Your task to perform on an android device: change notification settings in the gmail app Image 0: 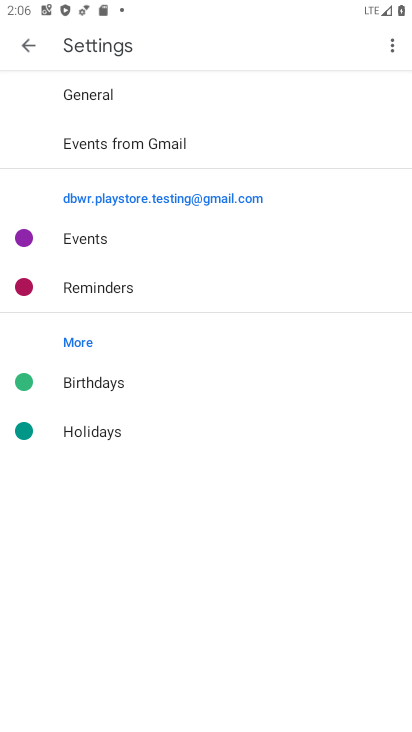
Step 0: press back button
Your task to perform on an android device: change notification settings in the gmail app Image 1: 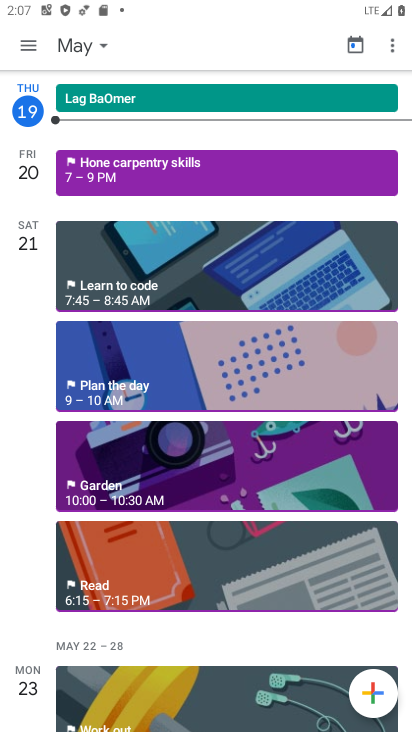
Step 1: press back button
Your task to perform on an android device: change notification settings in the gmail app Image 2: 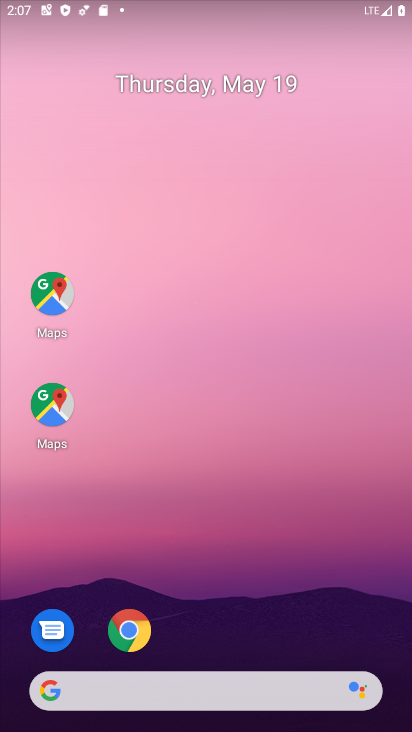
Step 2: drag from (225, 504) to (220, 67)
Your task to perform on an android device: change notification settings in the gmail app Image 3: 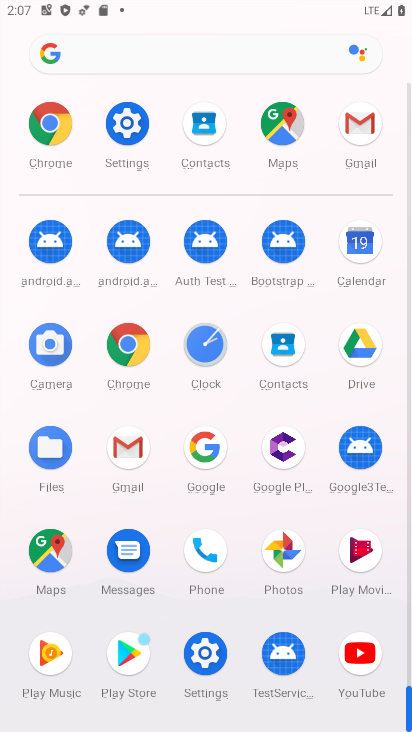
Step 3: drag from (7, 561) to (15, 311)
Your task to perform on an android device: change notification settings in the gmail app Image 4: 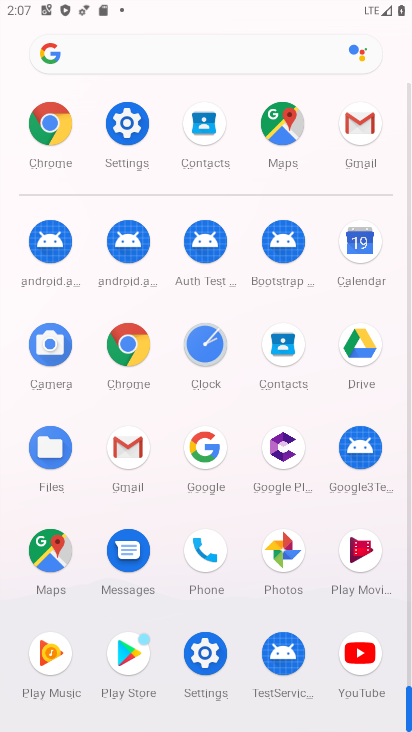
Step 4: click (129, 438)
Your task to perform on an android device: change notification settings in the gmail app Image 5: 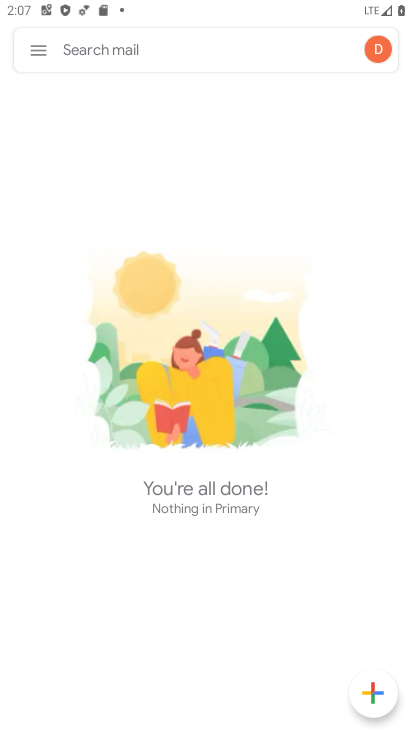
Step 5: click (33, 56)
Your task to perform on an android device: change notification settings in the gmail app Image 6: 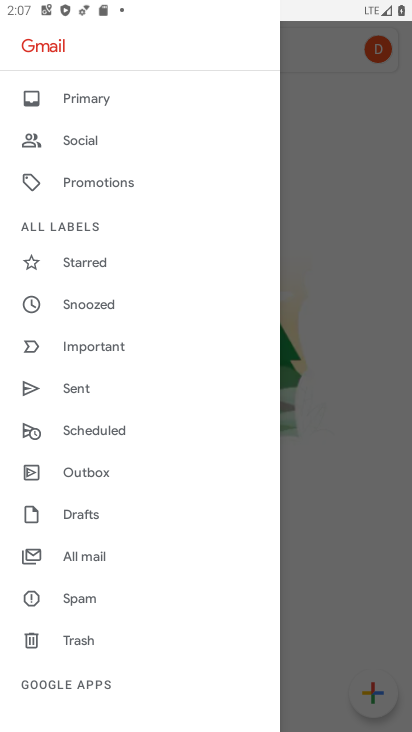
Step 6: drag from (117, 607) to (131, 106)
Your task to perform on an android device: change notification settings in the gmail app Image 7: 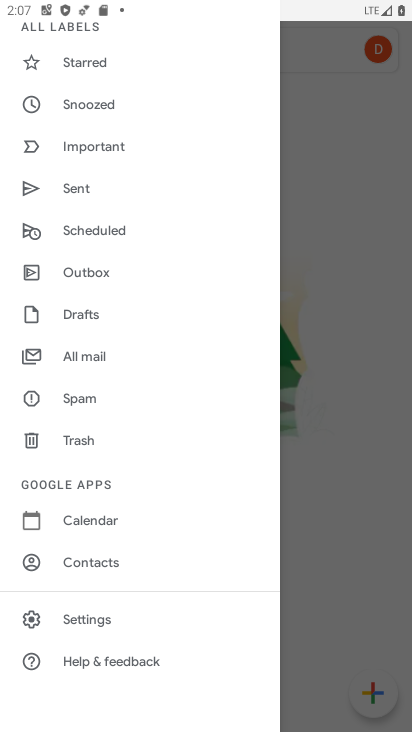
Step 7: click (71, 609)
Your task to perform on an android device: change notification settings in the gmail app Image 8: 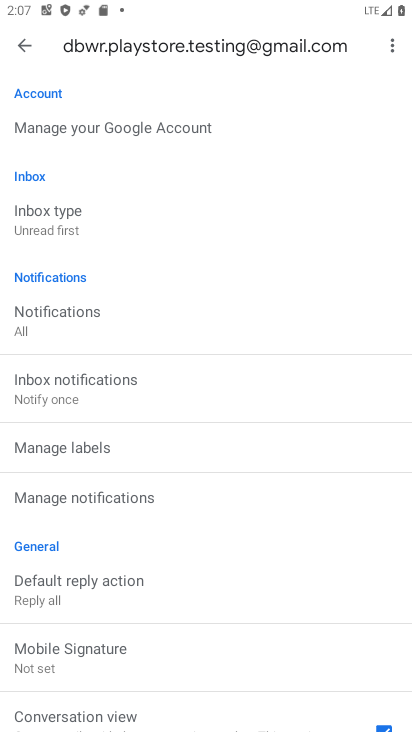
Step 8: drag from (250, 647) to (248, 263)
Your task to perform on an android device: change notification settings in the gmail app Image 9: 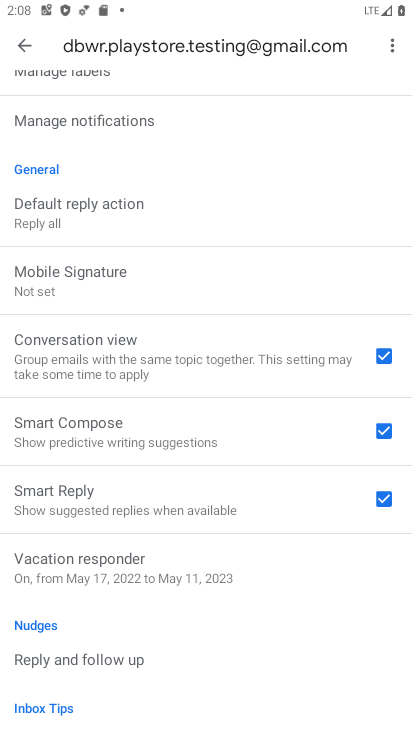
Step 9: click (91, 121)
Your task to perform on an android device: change notification settings in the gmail app Image 10: 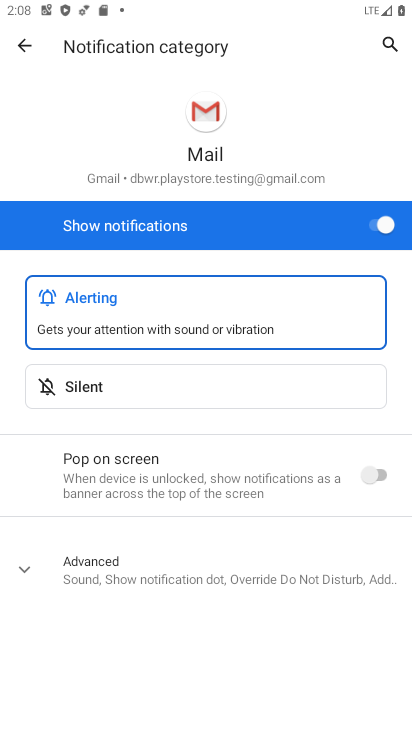
Step 10: click (379, 216)
Your task to perform on an android device: change notification settings in the gmail app Image 11: 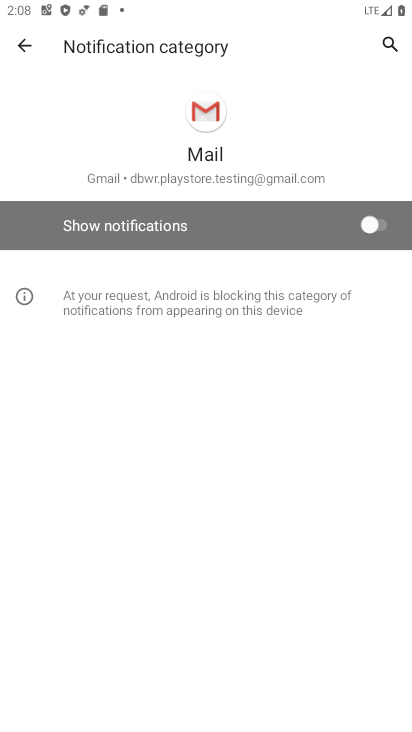
Step 11: task complete